Your task to perform on an android device: Do I have any events tomorrow? Image 0: 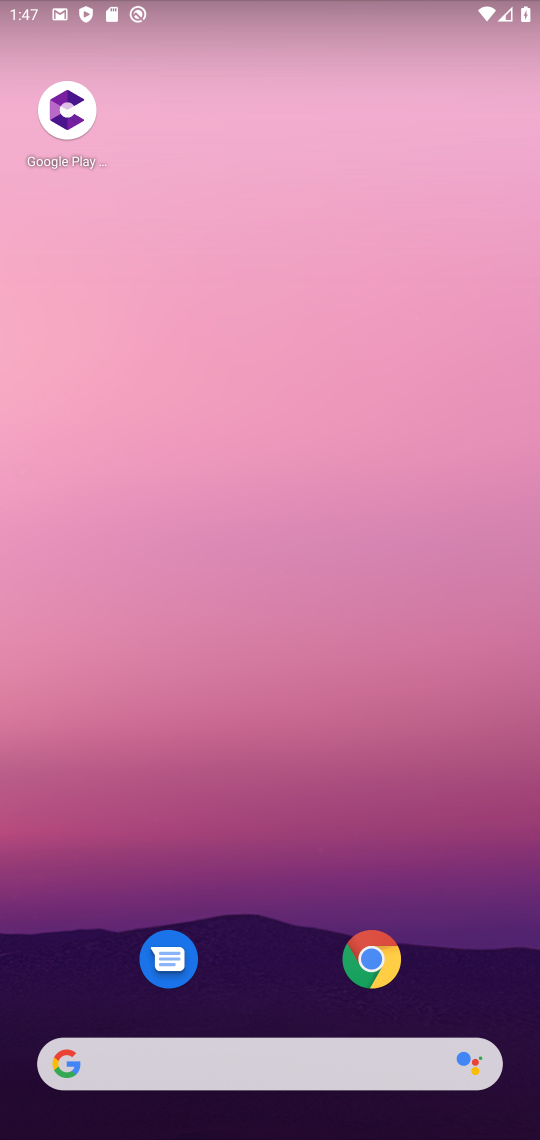
Step 0: drag from (222, 901) to (476, 0)
Your task to perform on an android device: Do I have any events tomorrow? Image 1: 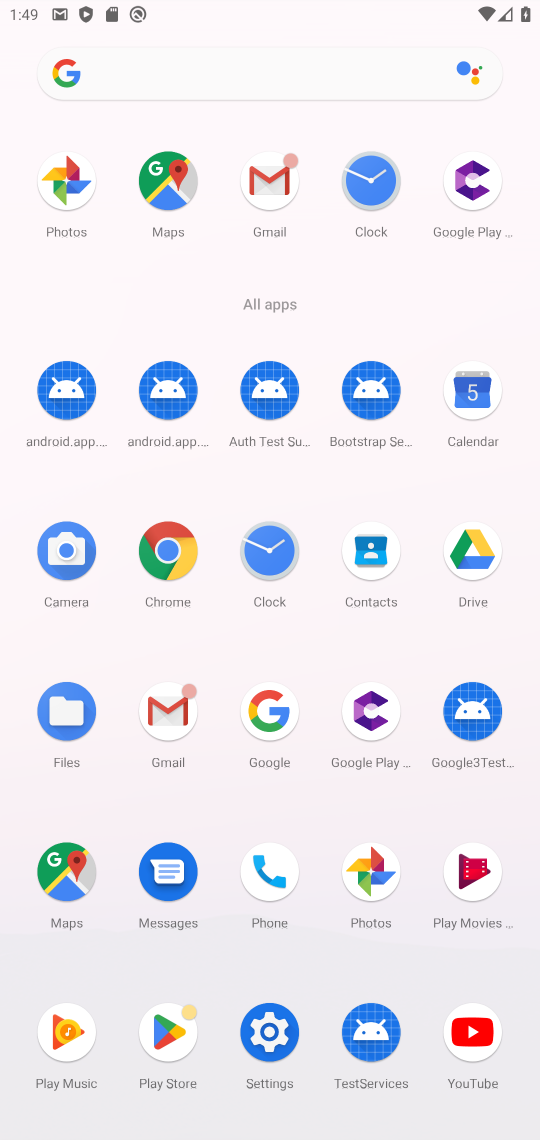
Step 1: click (466, 397)
Your task to perform on an android device: Do I have any events tomorrow? Image 2: 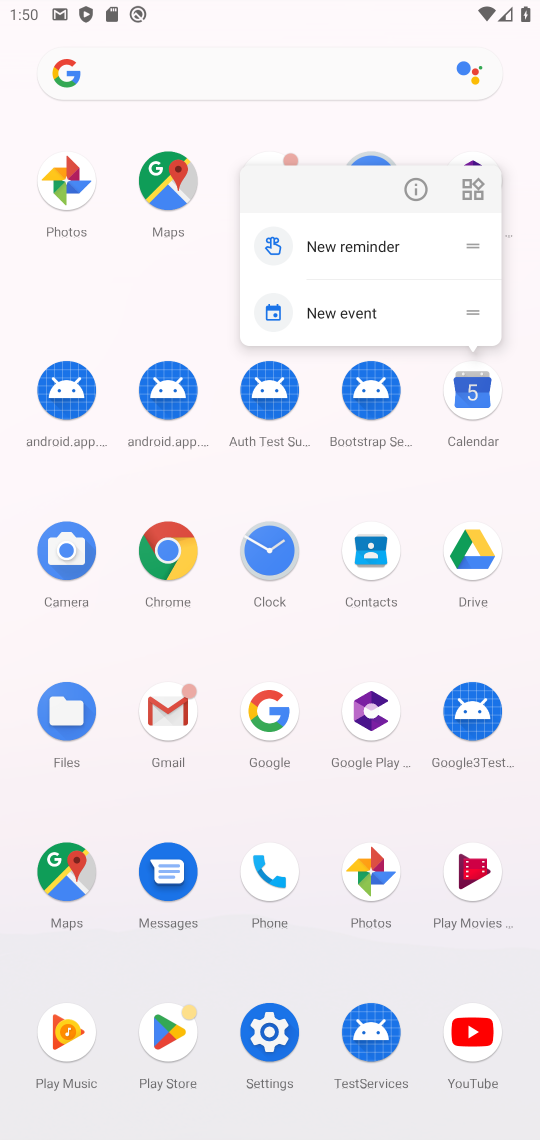
Step 2: click (466, 397)
Your task to perform on an android device: Do I have any events tomorrow? Image 3: 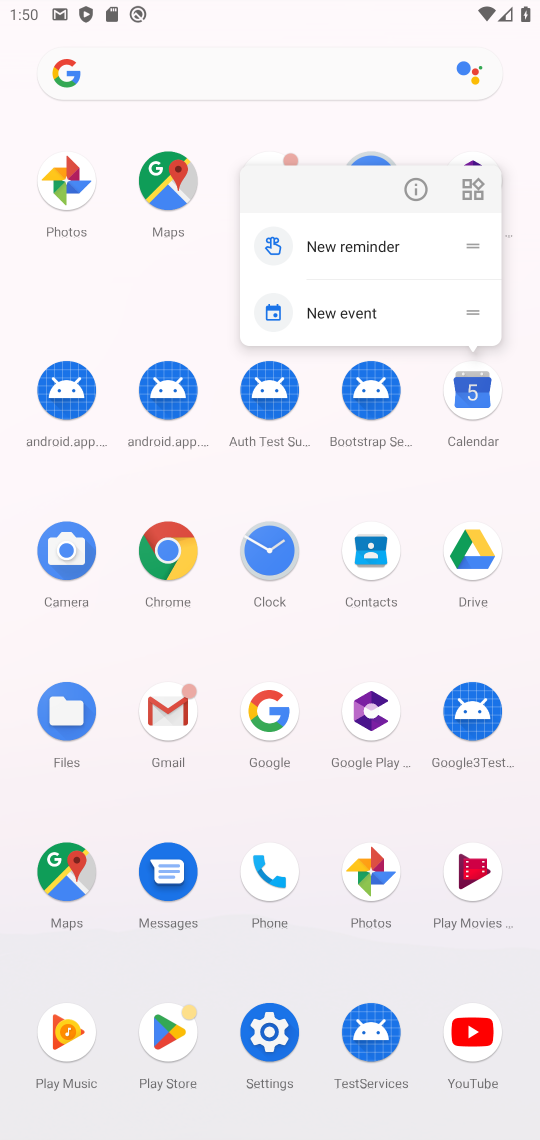
Step 3: click (487, 394)
Your task to perform on an android device: Do I have any events tomorrow? Image 4: 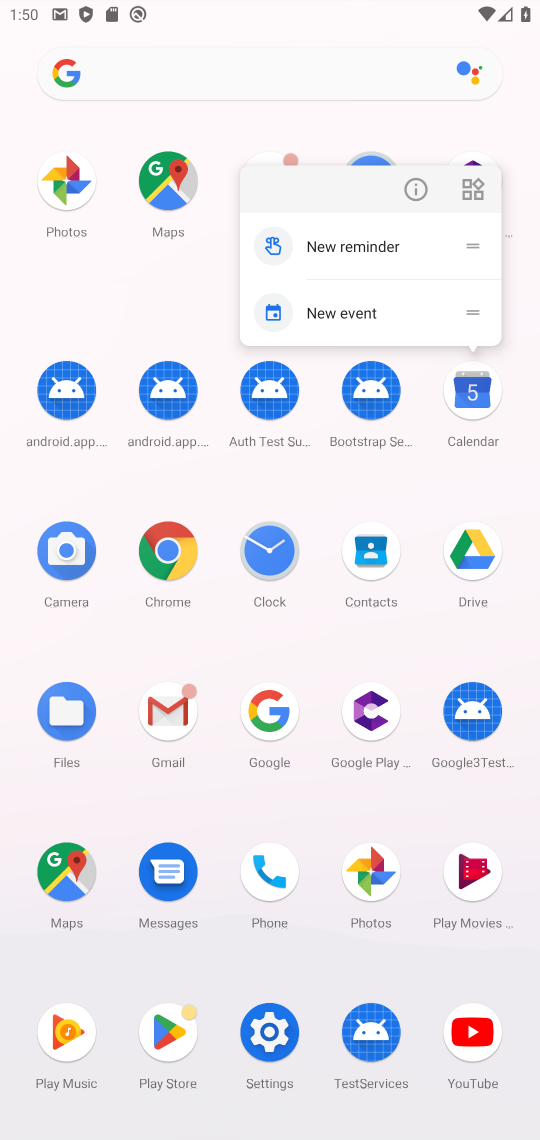
Step 4: click (481, 385)
Your task to perform on an android device: Do I have any events tomorrow? Image 5: 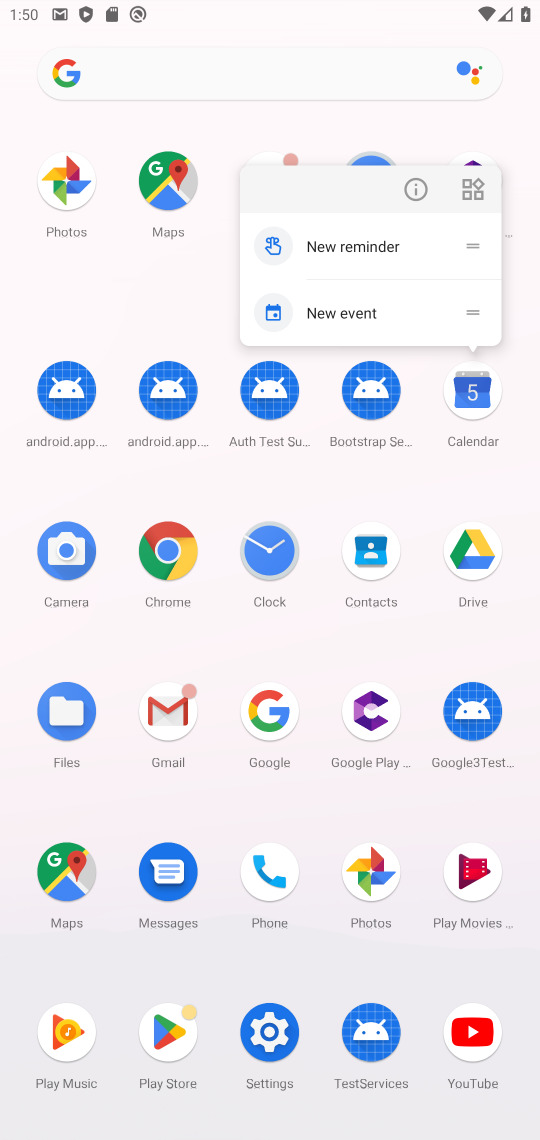
Step 5: click (473, 397)
Your task to perform on an android device: Do I have any events tomorrow? Image 6: 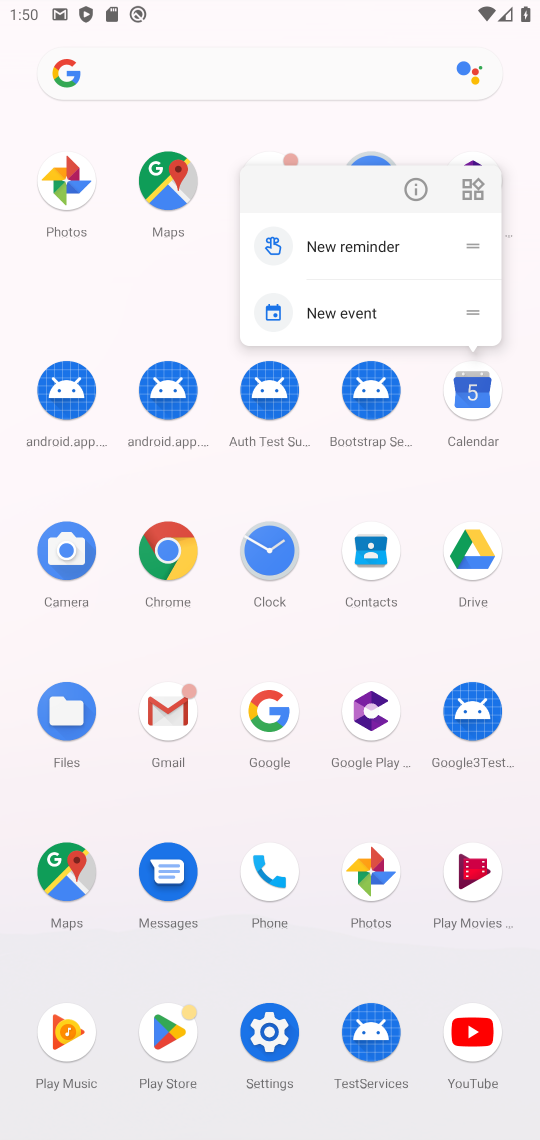
Step 6: click (462, 411)
Your task to perform on an android device: Do I have any events tomorrow? Image 7: 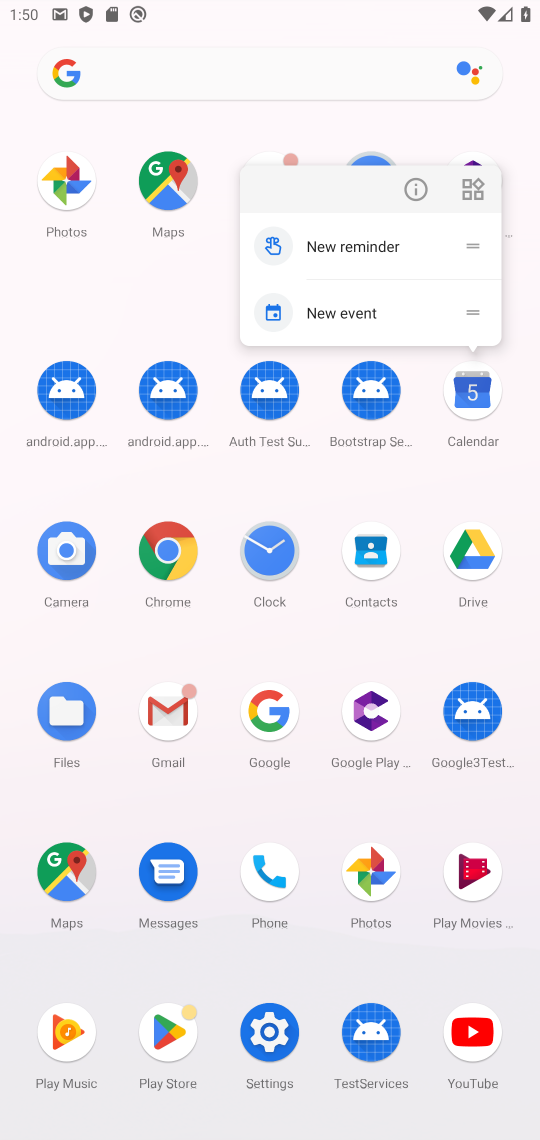
Step 7: click (462, 411)
Your task to perform on an android device: Do I have any events tomorrow? Image 8: 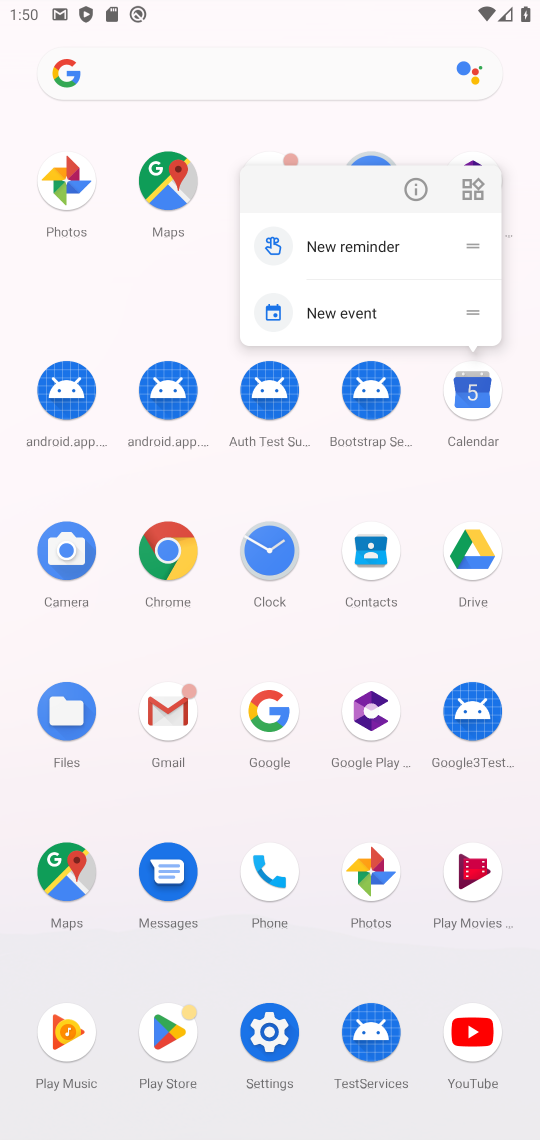
Step 8: click (485, 405)
Your task to perform on an android device: Do I have any events tomorrow? Image 9: 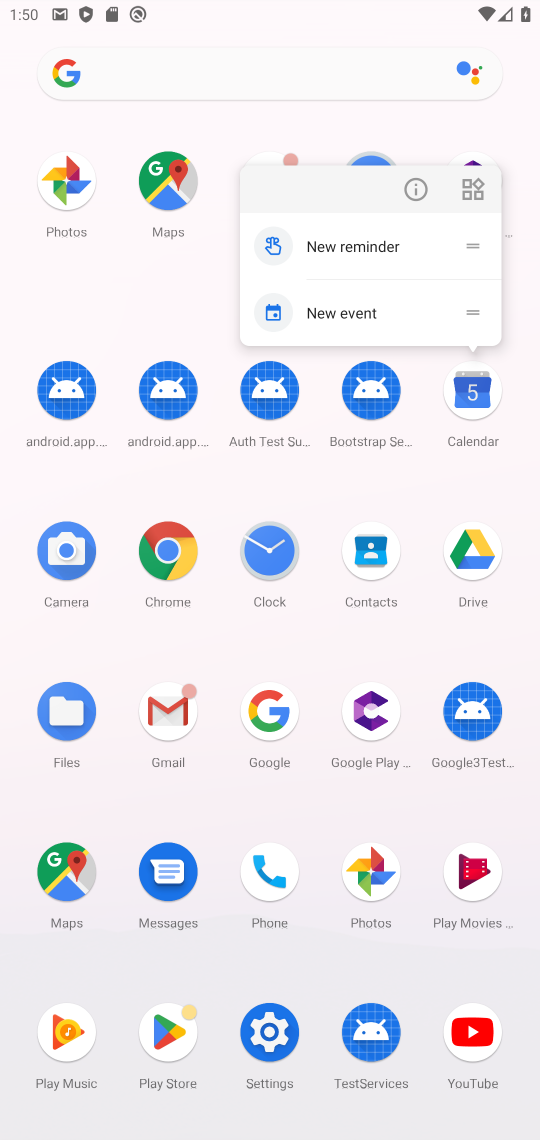
Step 9: click (466, 389)
Your task to perform on an android device: Do I have any events tomorrow? Image 10: 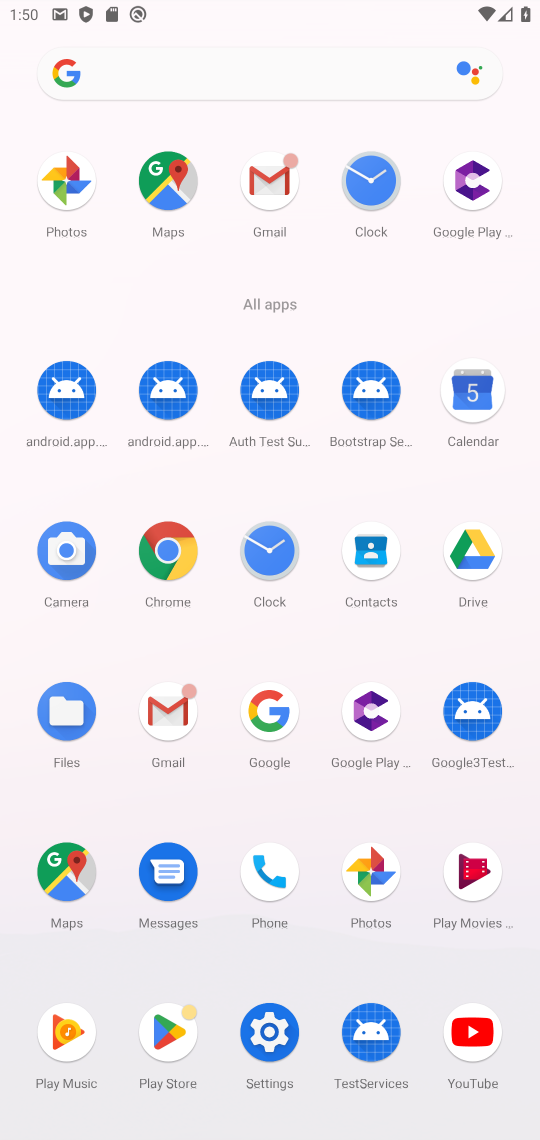
Step 10: click (466, 389)
Your task to perform on an android device: Do I have any events tomorrow? Image 11: 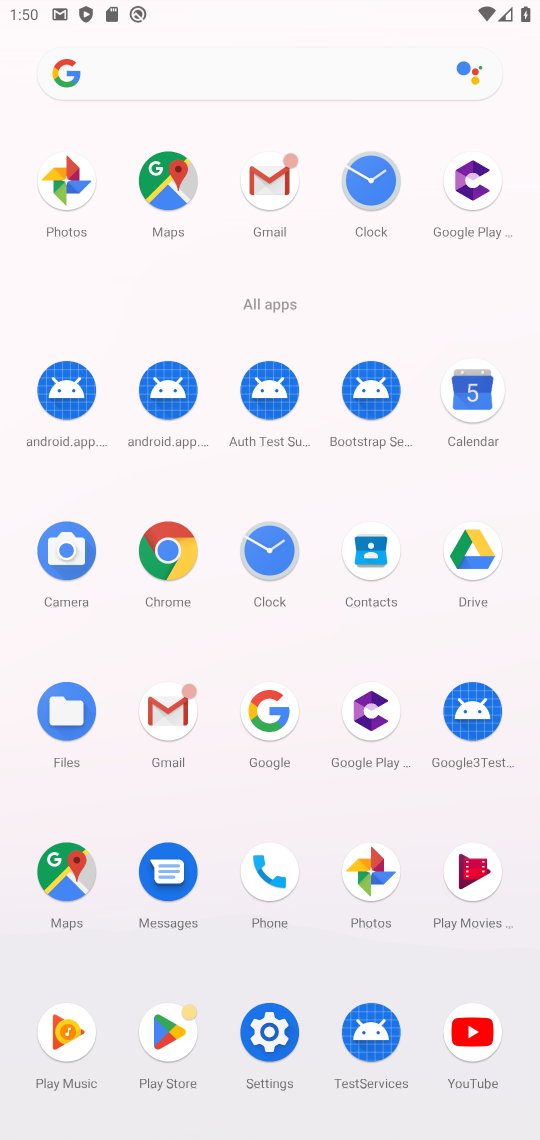
Step 11: click (466, 423)
Your task to perform on an android device: Do I have any events tomorrow? Image 12: 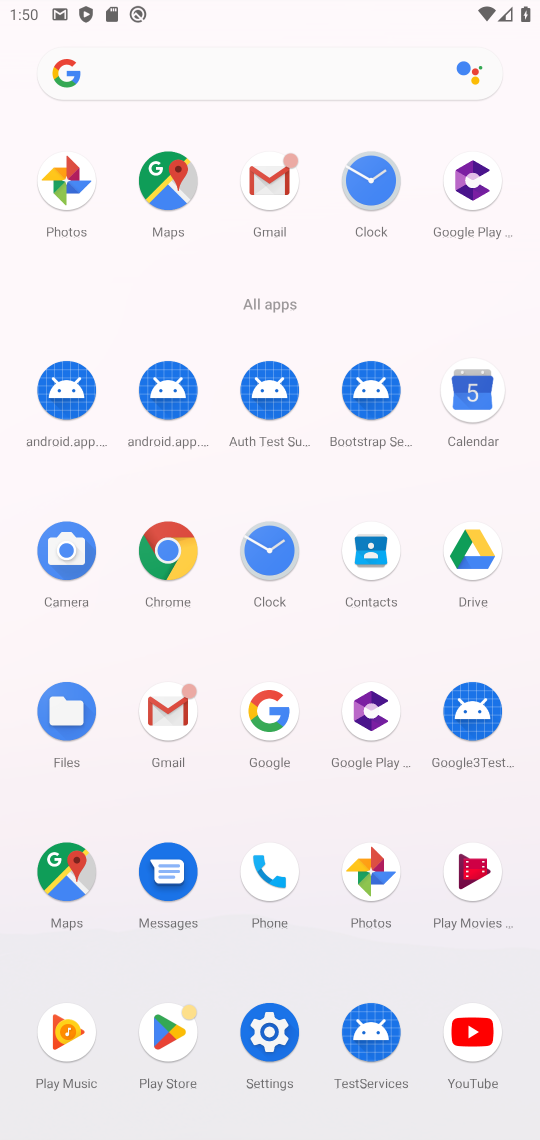
Step 12: click (488, 397)
Your task to perform on an android device: Do I have any events tomorrow? Image 13: 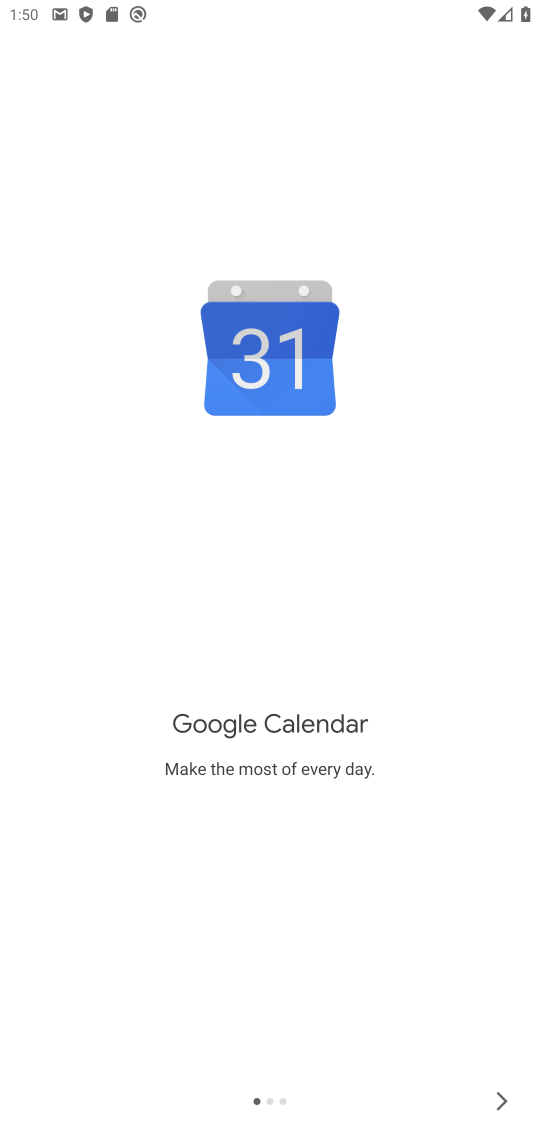
Step 13: click (489, 1102)
Your task to perform on an android device: Do I have any events tomorrow? Image 14: 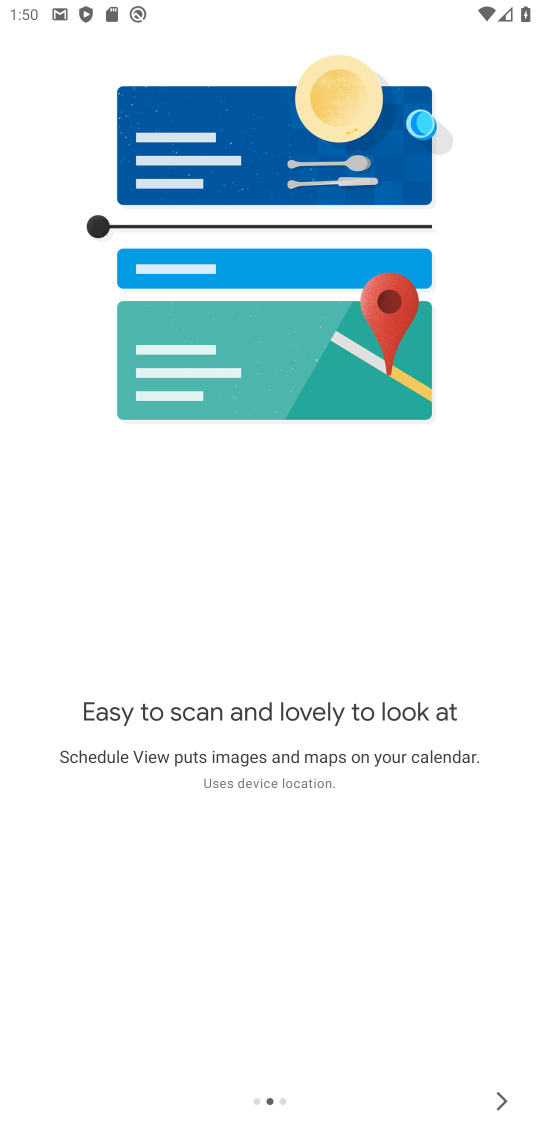
Step 14: click (489, 1102)
Your task to perform on an android device: Do I have any events tomorrow? Image 15: 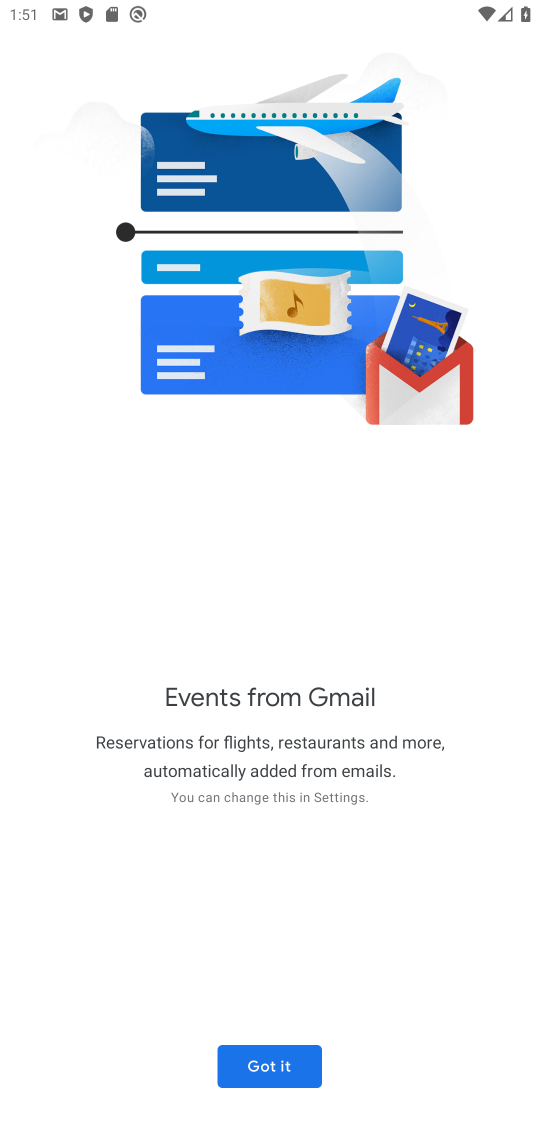
Step 15: click (273, 1060)
Your task to perform on an android device: Do I have any events tomorrow? Image 16: 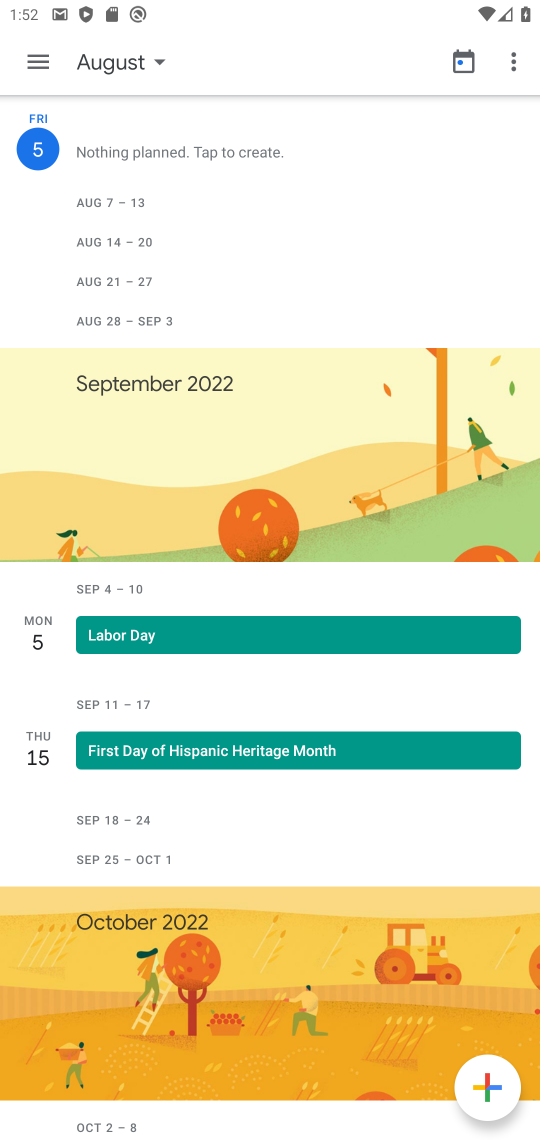
Step 16: click (118, 80)
Your task to perform on an android device: Do I have any events tomorrow? Image 17: 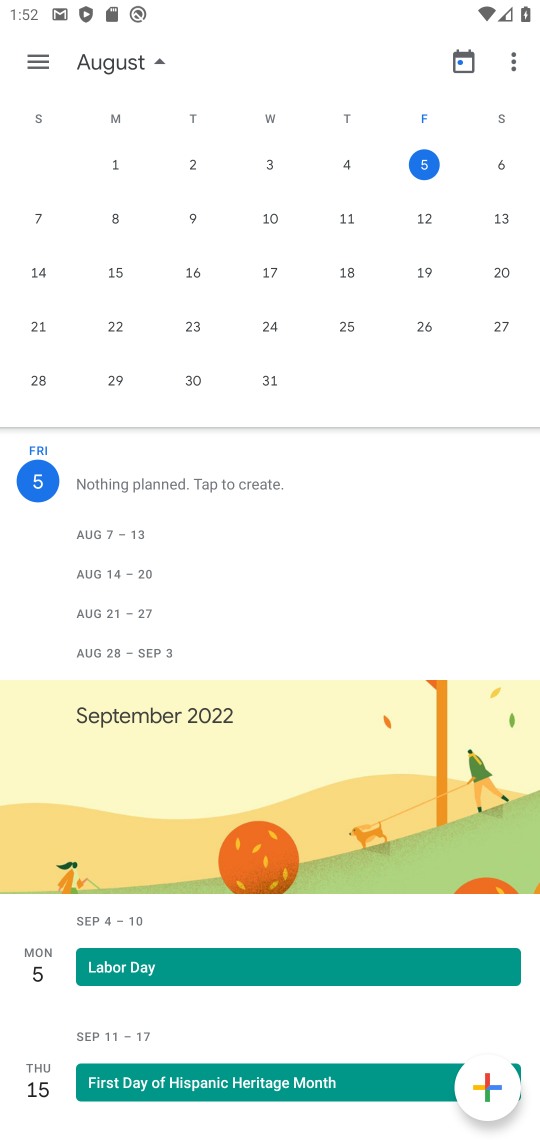
Step 17: click (503, 170)
Your task to perform on an android device: Do I have any events tomorrow? Image 18: 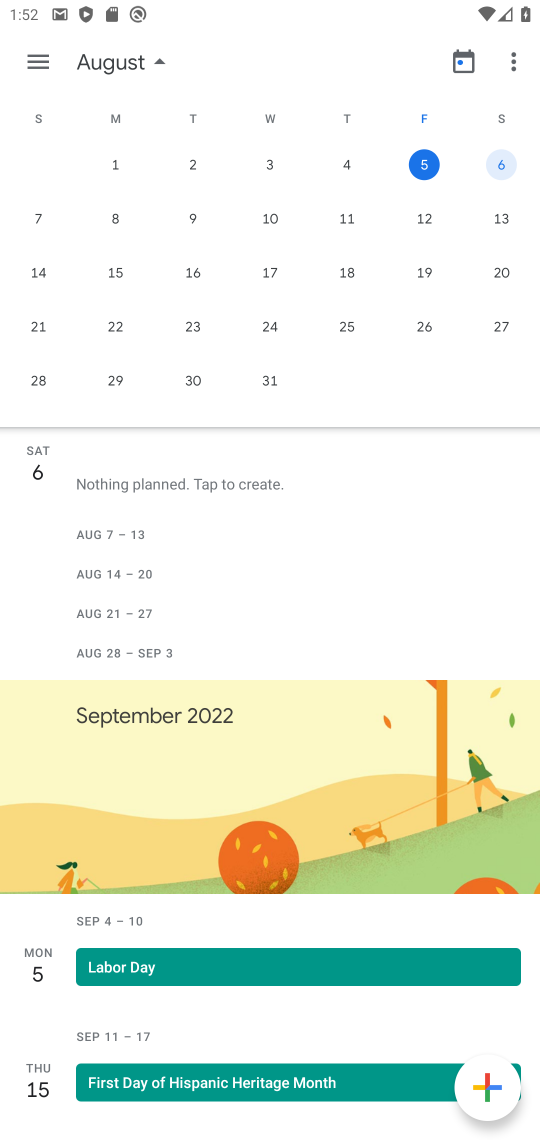
Step 18: task complete